Your task to perform on an android device: Go to battery settings Image 0: 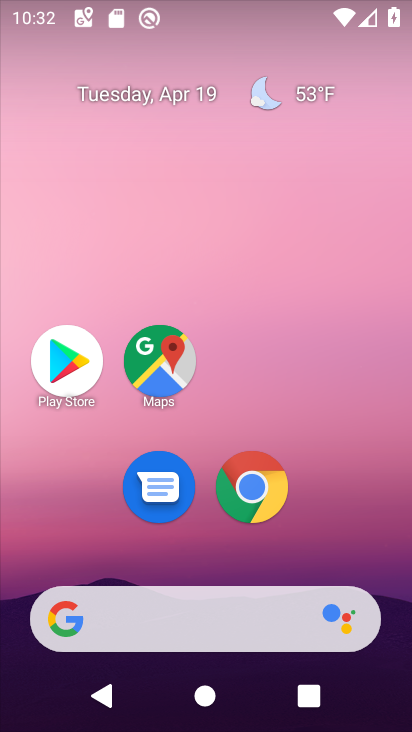
Step 0: drag from (390, 628) to (278, 0)
Your task to perform on an android device: Go to battery settings Image 1: 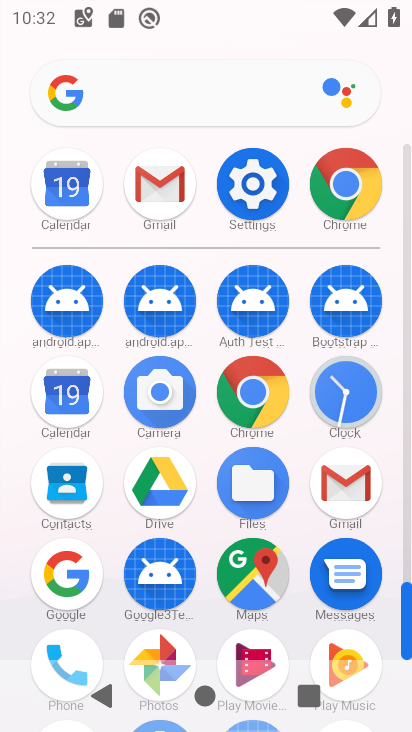
Step 1: click (252, 182)
Your task to perform on an android device: Go to battery settings Image 2: 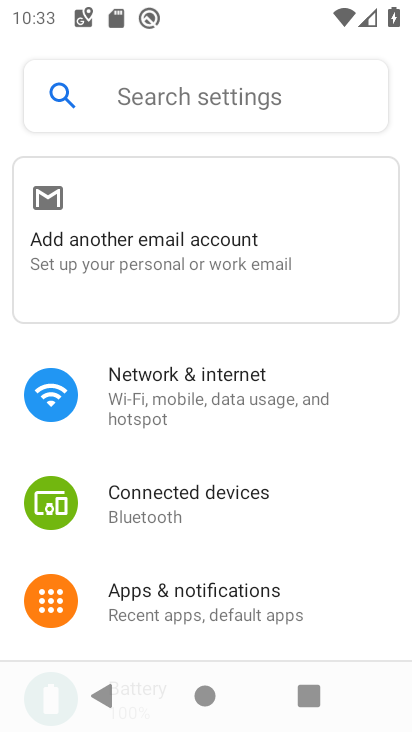
Step 2: drag from (316, 521) to (293, 172)
Your task to perform on an android device: Go to battery settings Image 3: 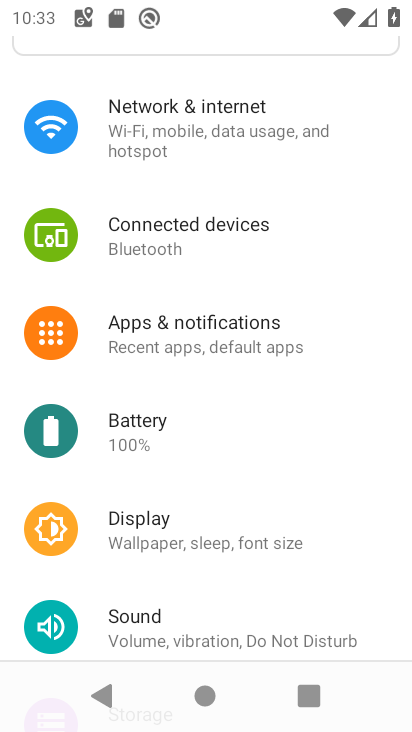
Step 3: click (179, 439)
Your task to perform on an android device: Go to battery settings Image 4: 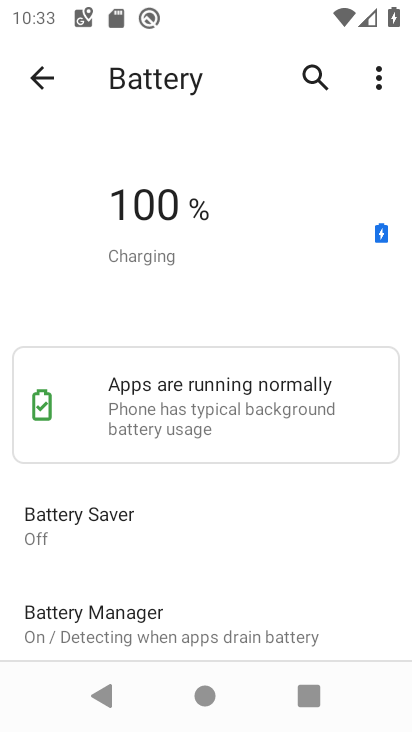
Step 4: task complete